Your task to perform on an android device: Do I have any events tomorrow? Image 0: 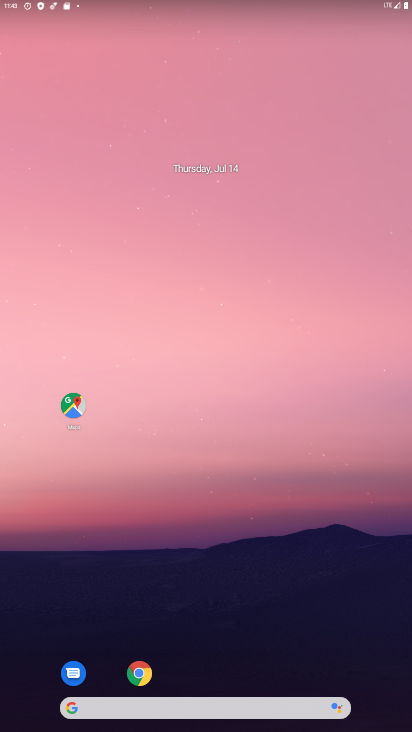
Step 0: drag from (188, 654) to (210, 91)
Your task to perform on an android device: Do I have any events tomorrow? Image 1: 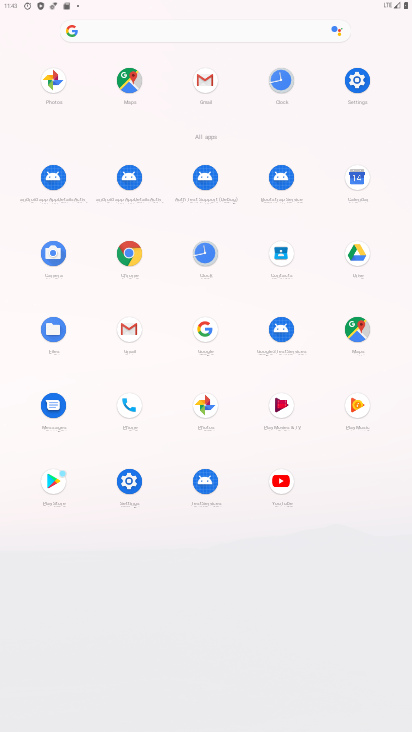
Step 1: click (354, 166)
Your task to perform on an android device: Do I have any events tomorrow? Image 2: 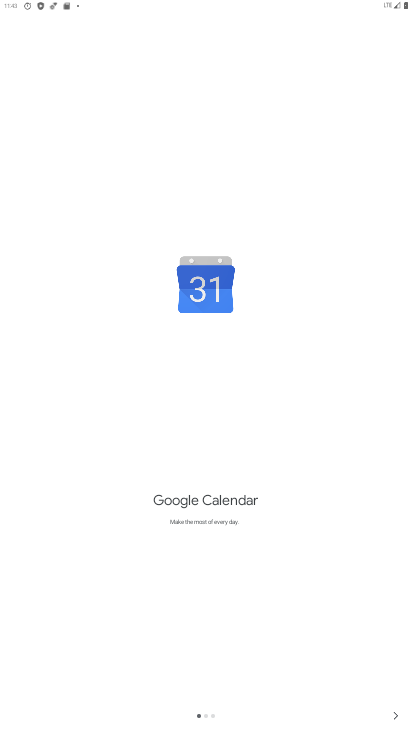
Step 2: click (396, 712)
Your task to perform on an android device: Do I have any events tomorrow? Image 3: 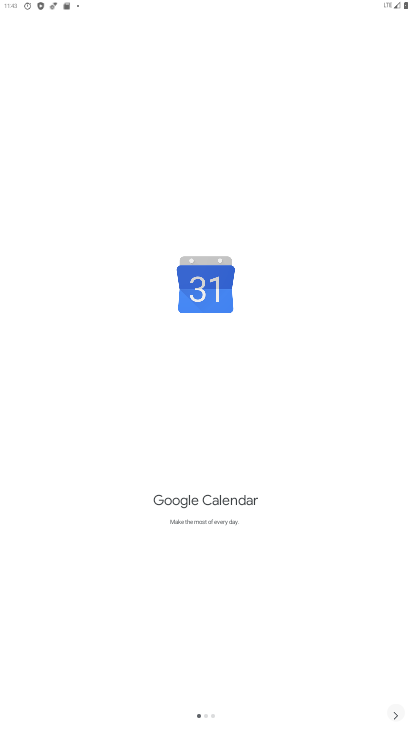
Step 3: click (396, 712)
Your task to perform on an android device: Do I have any events tomorrow? Image 4: 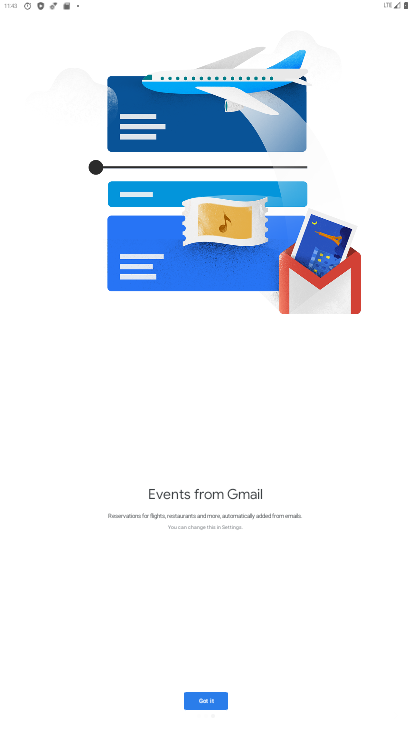
Step 4: click (396, 712)
Your task to perform on an android device: Do I have any events tomorrow? Image 5: 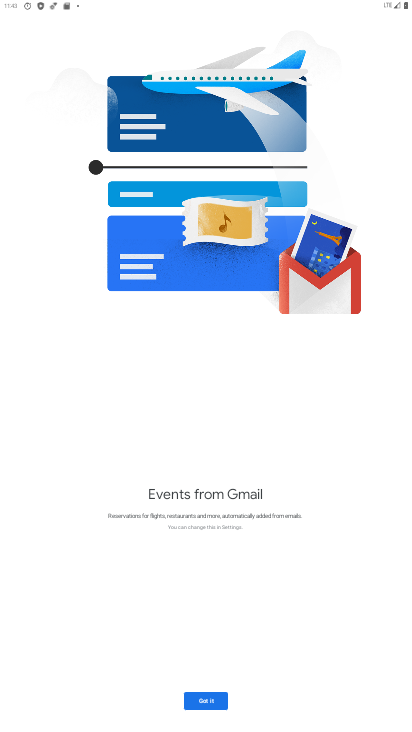
Step 5: click (396, 712)
Your task to perform on an android device: Do I have any events tomorrow? Image 6: 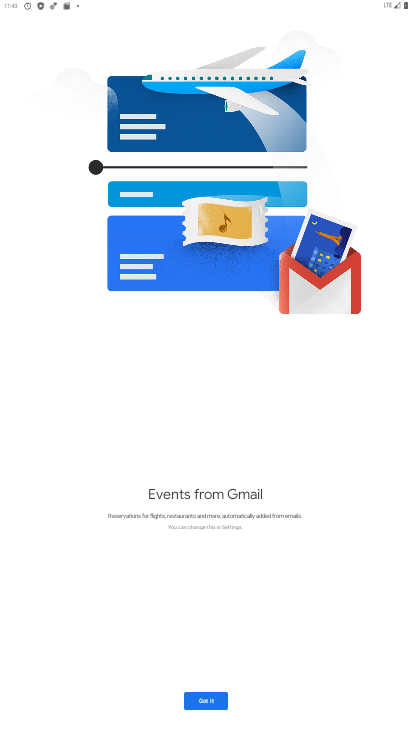
Step 6: click (208, 705)
Your task to perform on an android device: Do I have any events tomorrow? Image 7: 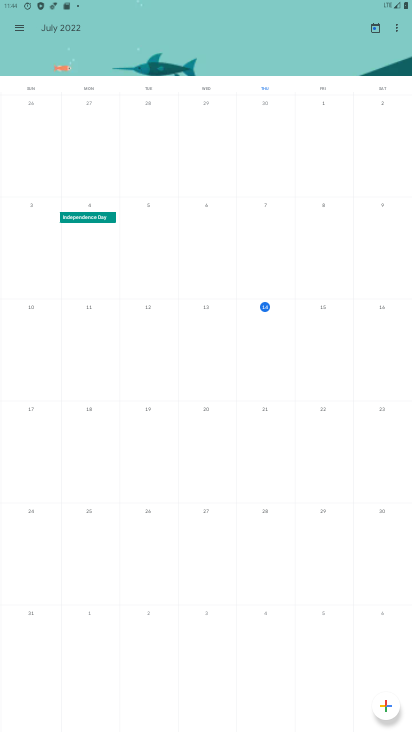
Step 7: click (319, 307)
Your task to perform on an android device: Do I have any events tomorrow? Image 8: 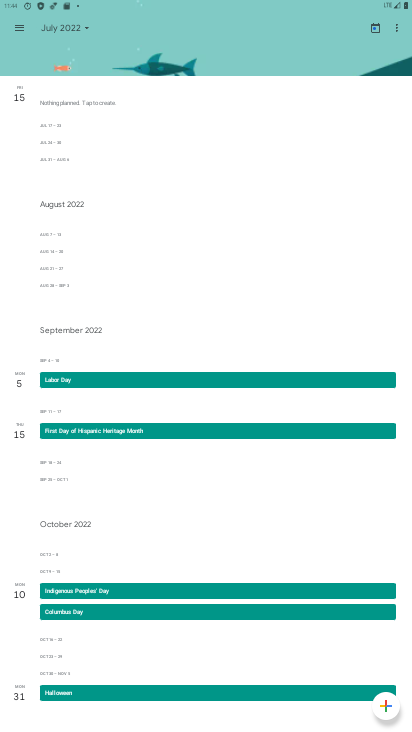
Step 8: task complete